Your task to perform on an android device: open app "NewsBreak: Local News & Alerts" Image 0: 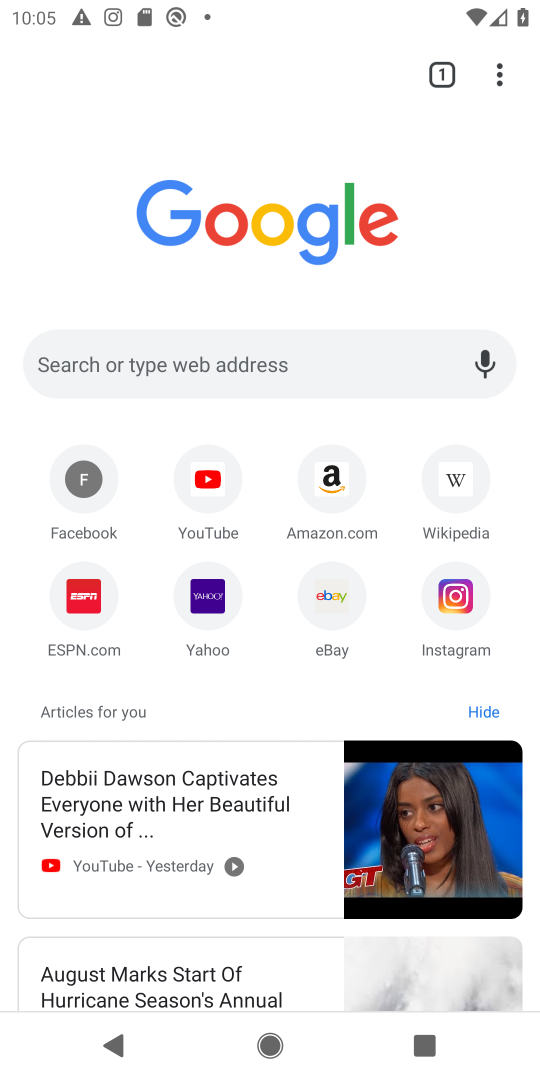
Step 0: press home button
Your task to perform on an android device: open app "NewsBreak: Local News & Alerts" Image 1: 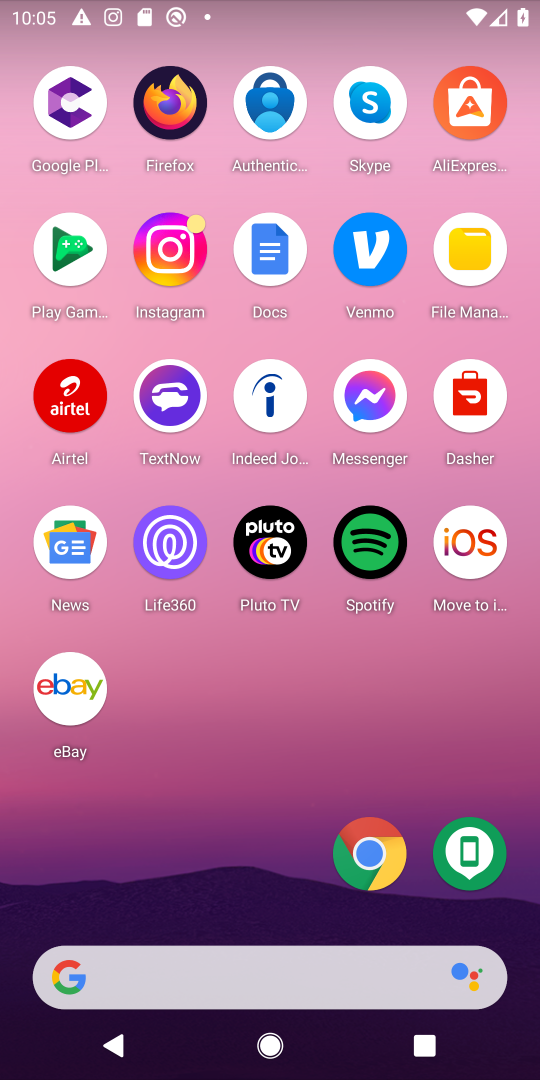
Step 1: drag from (191, 739) to (204, 65)
Your task to perform on an android device: open app "NewsBreak: Local News & Alerts" Image 2: 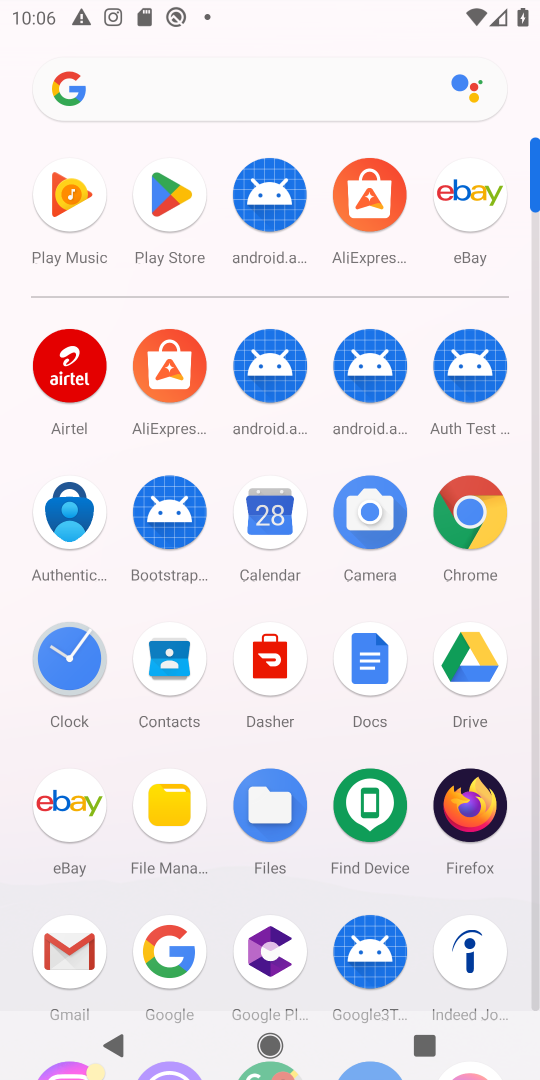
Step 2: click (167, 189)
Your task to perform on an android device: open app "NewsBreak: Local News & Alerts" Image 3: 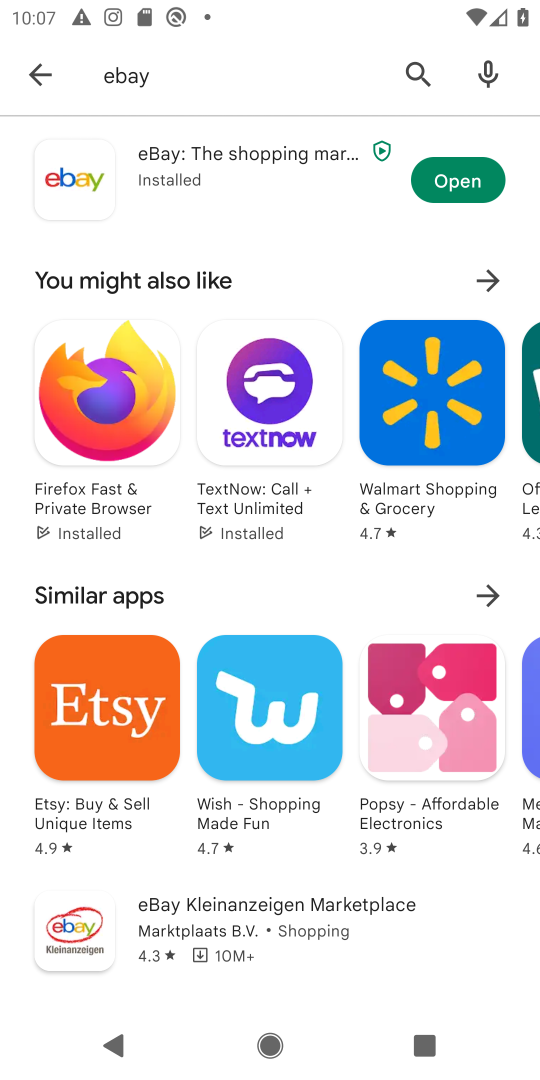
Step 3: click (49, 77)
Your task to perform on an android device: open app "NewsBreak: Local News & Alerts" Image 4: 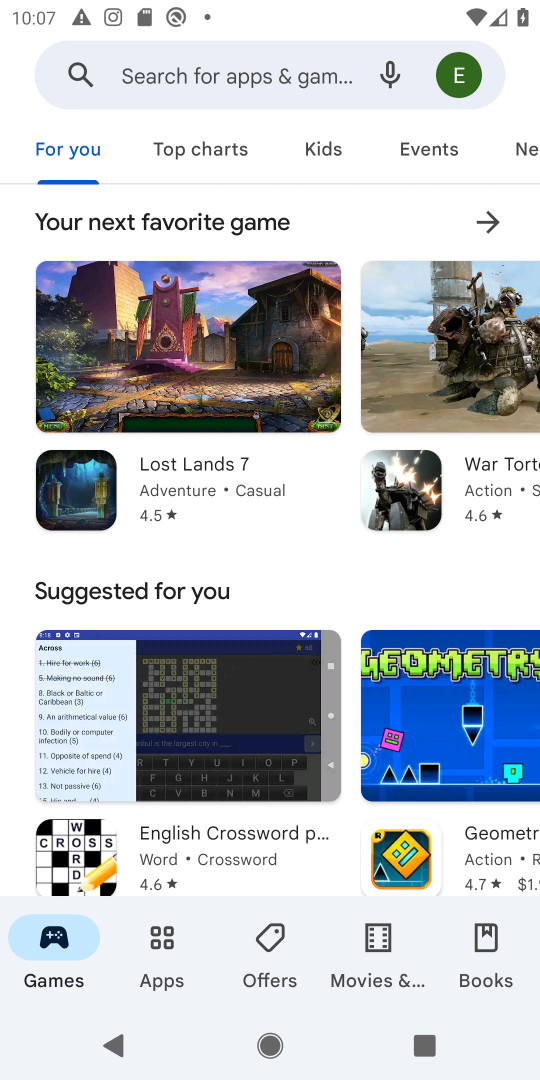
Step 4: click (169, 72)
Your task to perform on an android device: open app "NewsBreak: Local News & Alerts" Image 5: 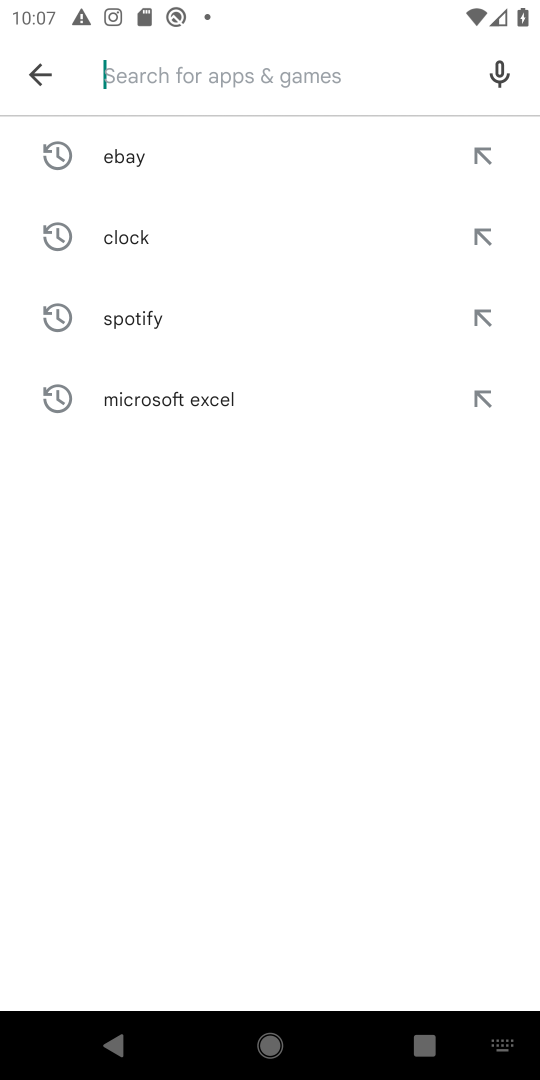
Step 5: type "NewsBreak: Local News & Alerts"
Your task to perform on an android device: open app "NewsBreak: Local News & Alerts" Image 6: 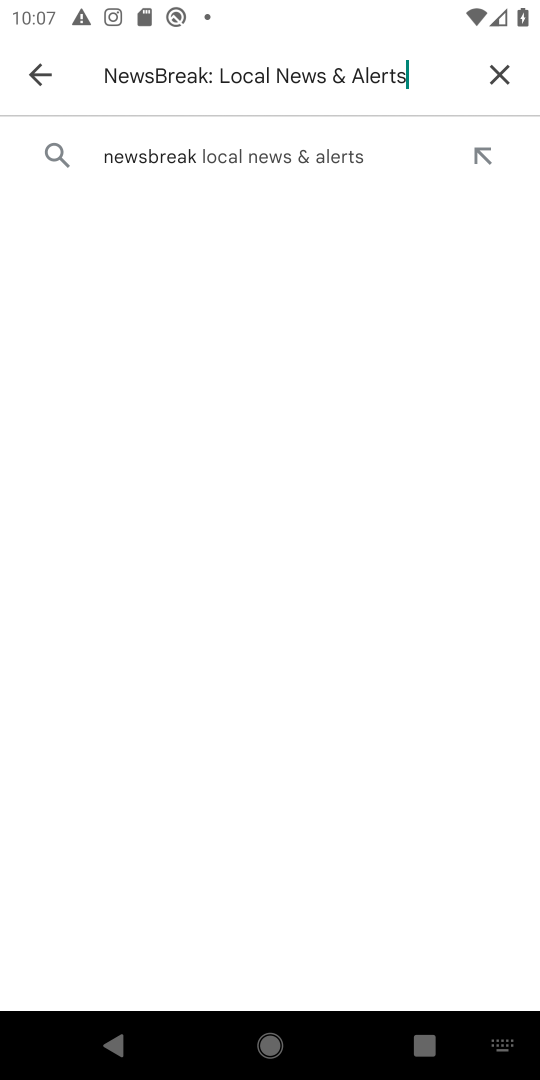
Step 6: click (277, 150)
Your task to perform on an android device: open app "NewsBreak: Local News & Alerts" Image 7: 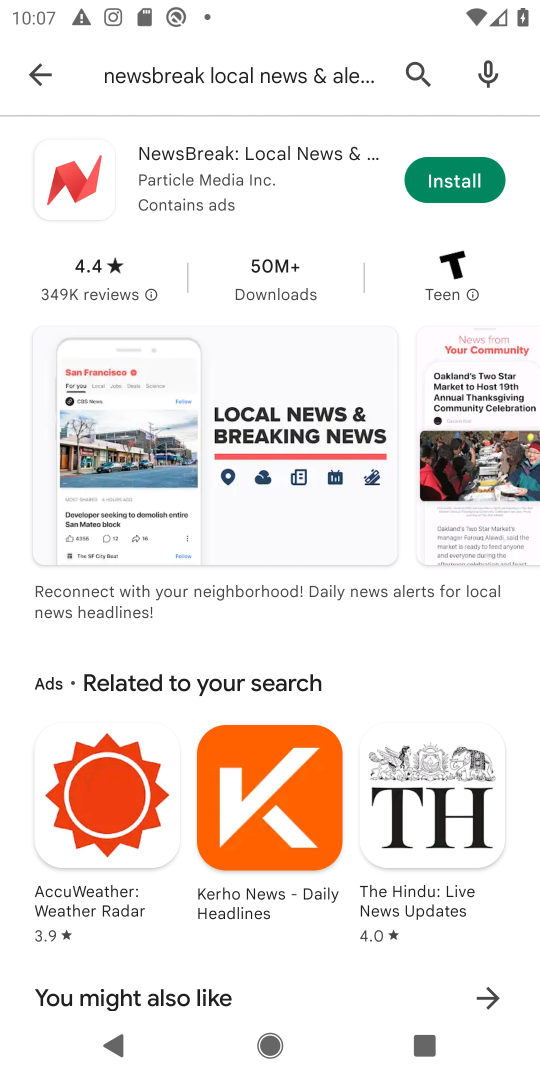
Step 7: click (446, 180)
Your task to perform on an android device: open app "NewsBreak: Local News & Alerts" Image 8: 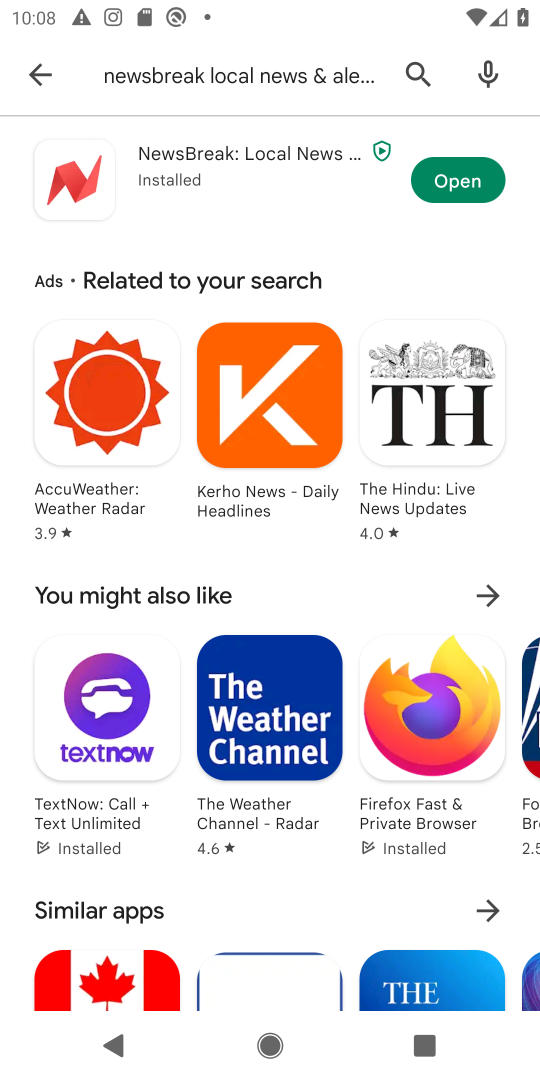
Step 8: click (426, 181)
Your task to perform on an android device: open app "NewsBreak: Local News & Alerts" Image 9: 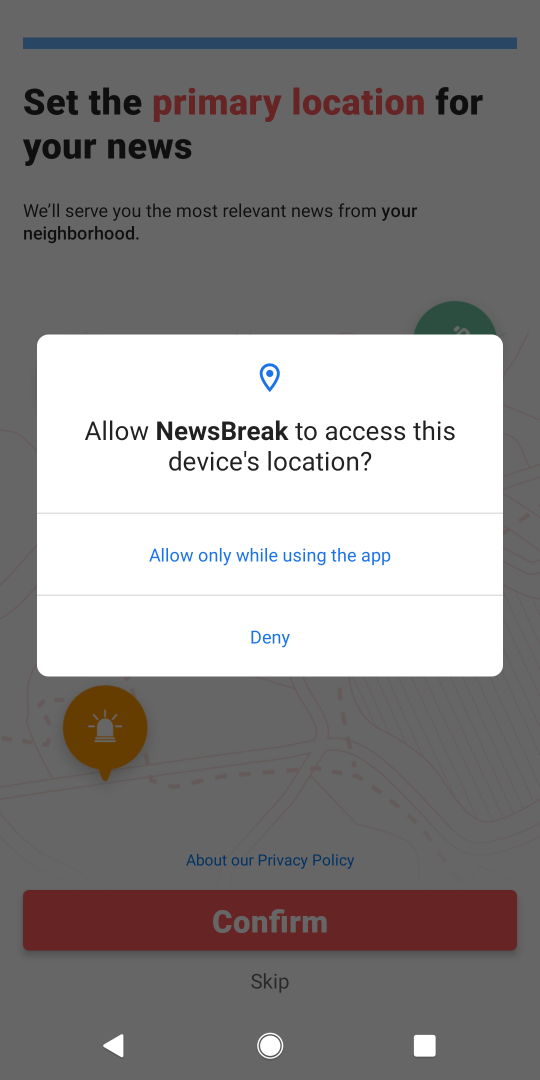
Step 9: task complete